Your task to perform on an android device: Search for a small bookcase on Ikea.com Image 0: 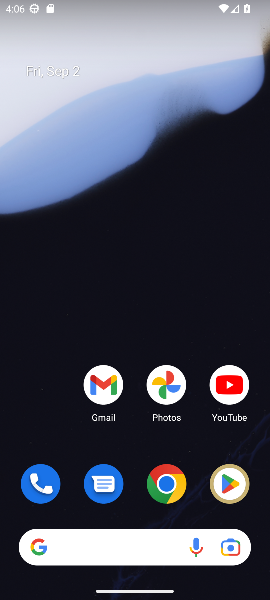
Step 0: click (169, 487)
Your task to perform on an android device: Search for a small bookcase on Ikea.com Image 1: 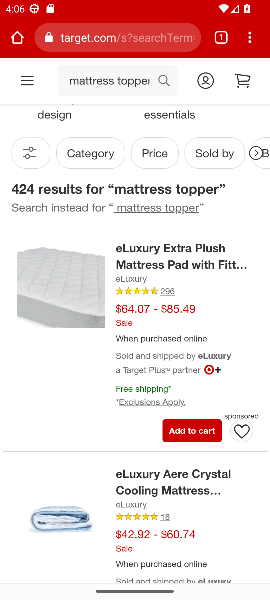
Step 1: click (133, 35)
Your task to perform on an android device: Search for a small bookcase on Ikea.com Image 2: 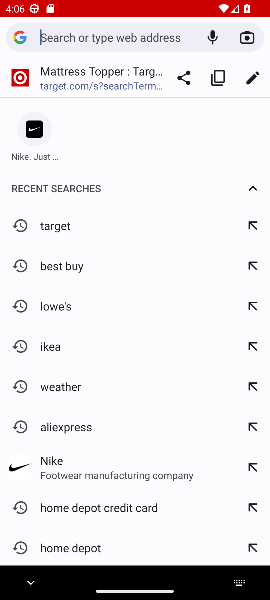
Step 2: type " Ikea.com"
Your task to perform on an android device: Search for a small bookcase on Ikea.com Image 3: 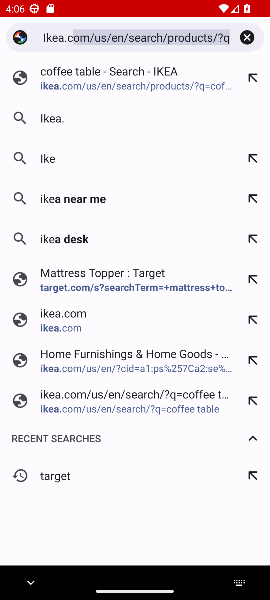
Step 3: press enter
Your task to perform on an android device: Search for a small bookcase on Ikea.com Image 4: 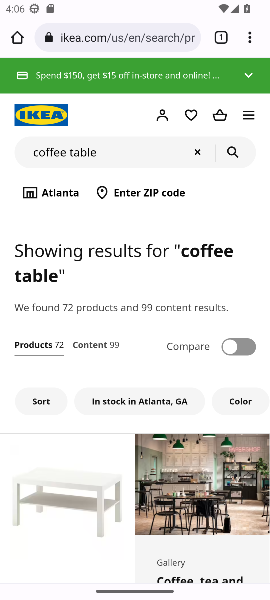
Step 4: click (195, 146)
Your task to perform on an android device: Search for a small bookcase on Ikea.com Image 5: 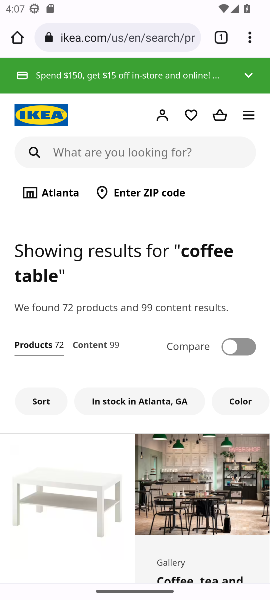
Step 5: click (26, 148)
Your task to perform on an android device: Search for a small bookcase on Ikea.com Image 6: 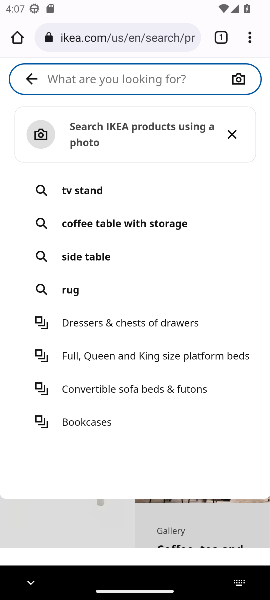
Step 6: type "small bookcase"
Your task to perform on an android device: Search for a small bookcase on Ikea.com Image 7: 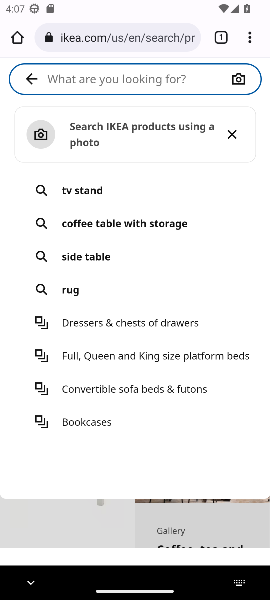
Step 7: press enter
Your task to perform on an android device: Search for a small bookcase on Ikea.com Image 8: 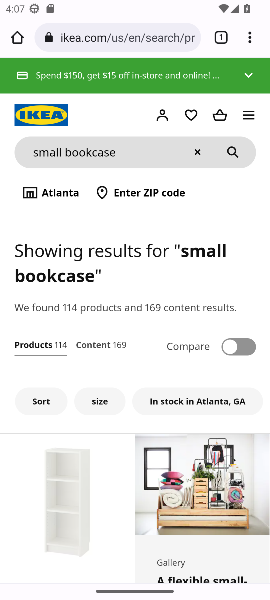
Step 8: task complete